Your task to perform on an android device: snooze an email in the gmail app Image 0: 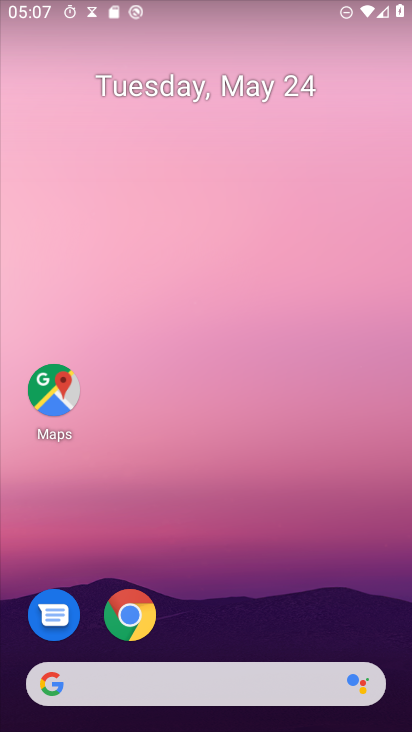
Step 0: drag from (263, 595) to (261, 55)
Your task to perform on an android device: snooze an email in the gmail app Image 1: 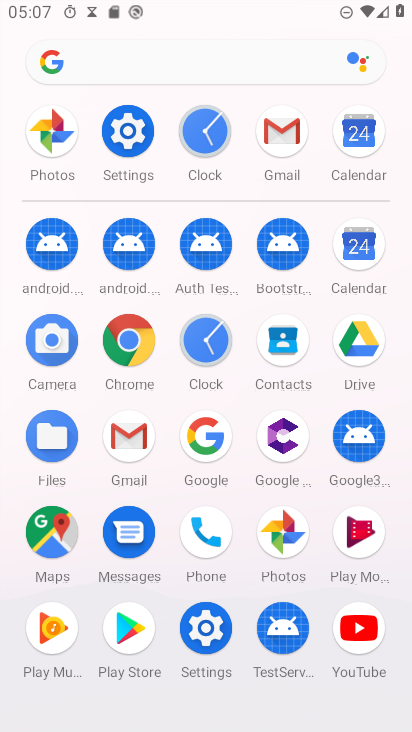
Step 1: click (270, 124)
Your task to perform on an android device: snooze an email in the gmail app Image 2: 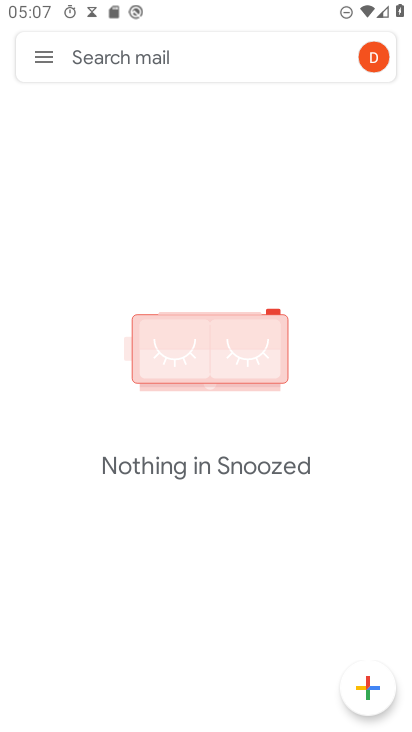
Step 2: click (39, 53)
Your task to perform on an android device: snooze an email in the gmail app Image 3: 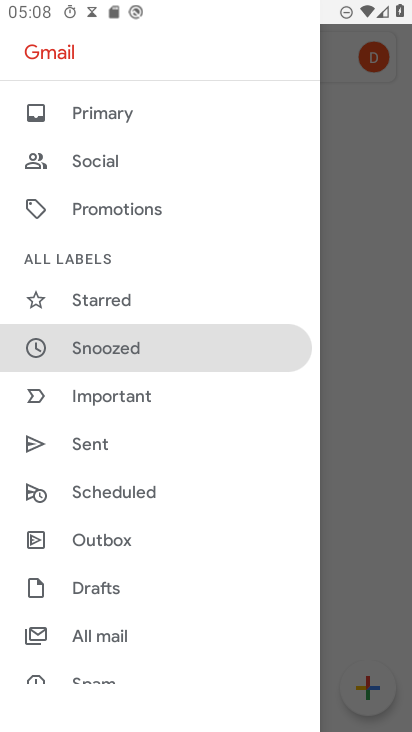
Step 3: click (105, 643)
Your task to perform on an android device: snooze an email in the gmail app Image 4: 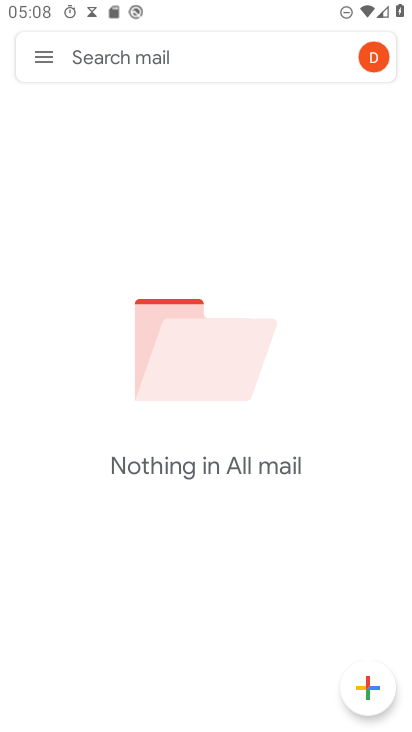
Step 4: task complete